Your task to perform on an android device: Open the calendar and show me this week's events? Image 0: 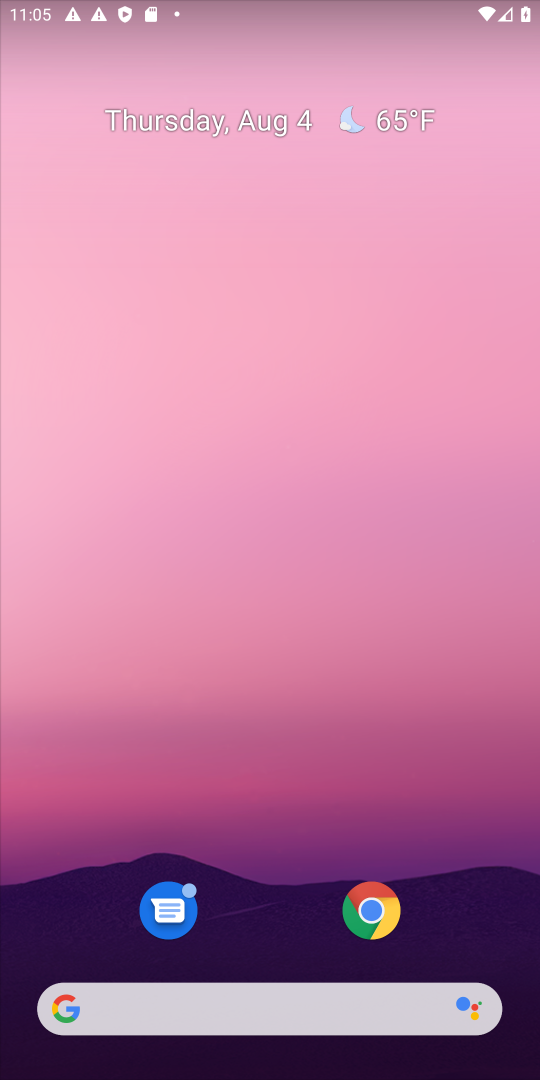
Step 0: drag from (289, 939) to (289, 208)
Your task to perform on an android device: Open the calendar and show me this week's events? Image 1: 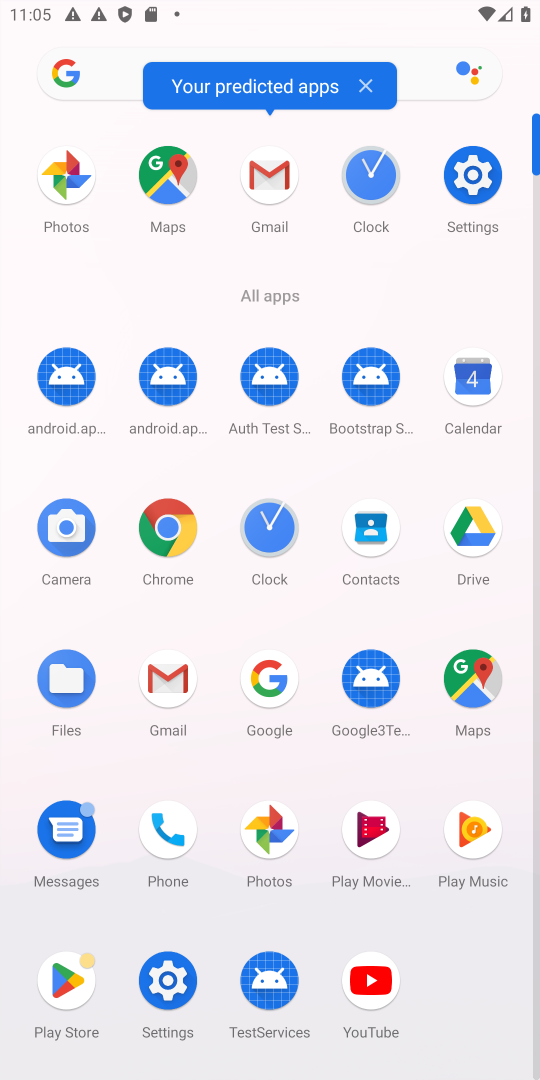
Step 1: click (467, 392)
Your task to perform on an android device: Open the calendar and show me this week's events? Image 2: 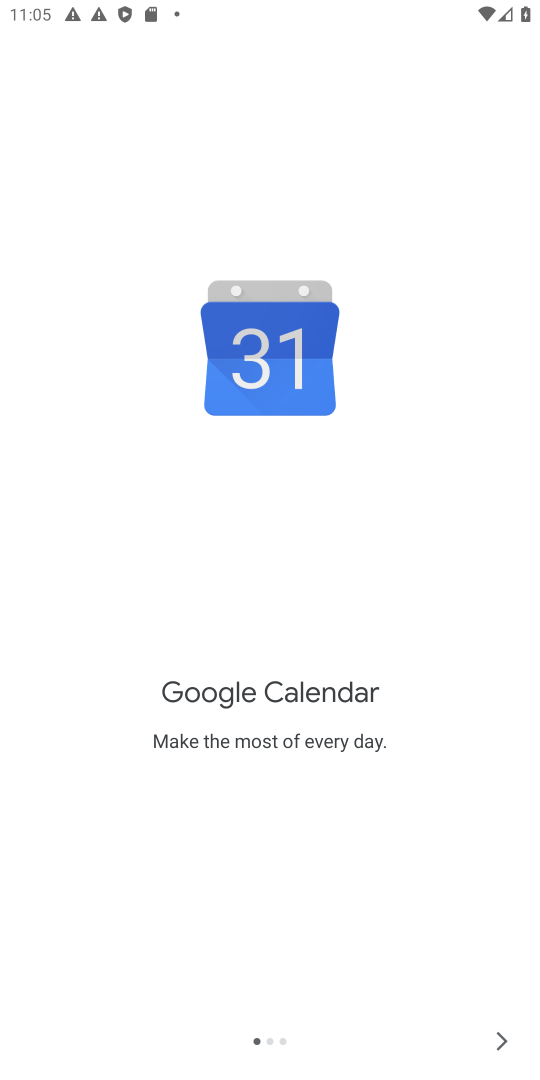
Step 2: click (510, 1051)
Your task to perform on an android device: Open the calendar and show me this week's events? Image 3: 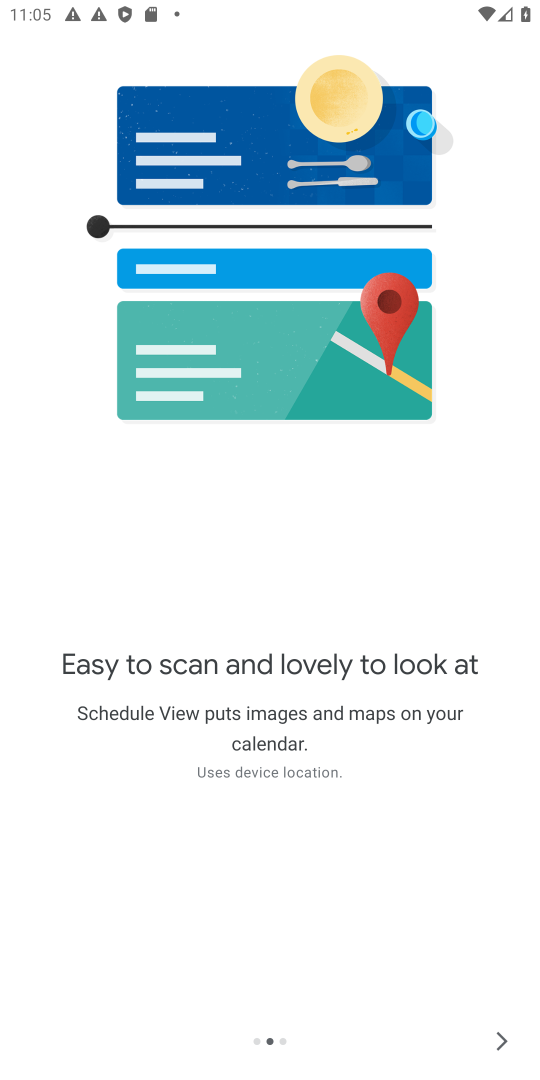
Step 3: click (500, 1047)
Your task to perform on an android device: Open the calendar and show me this week's events? Image 4: 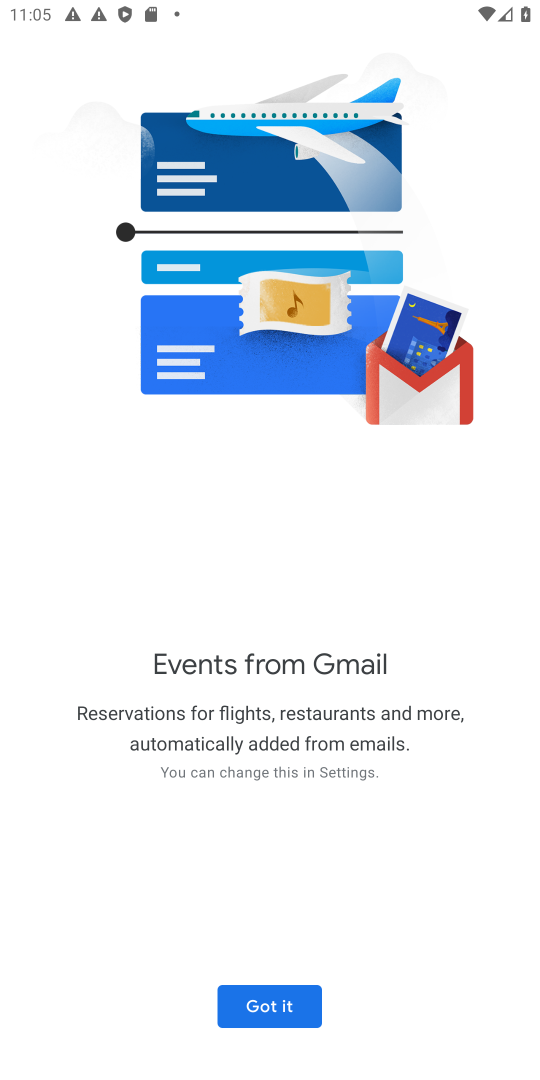
Step 4: click (240, 997)
Your task to perform on an android device: Open the calendar and show me this week's events? Image 5: 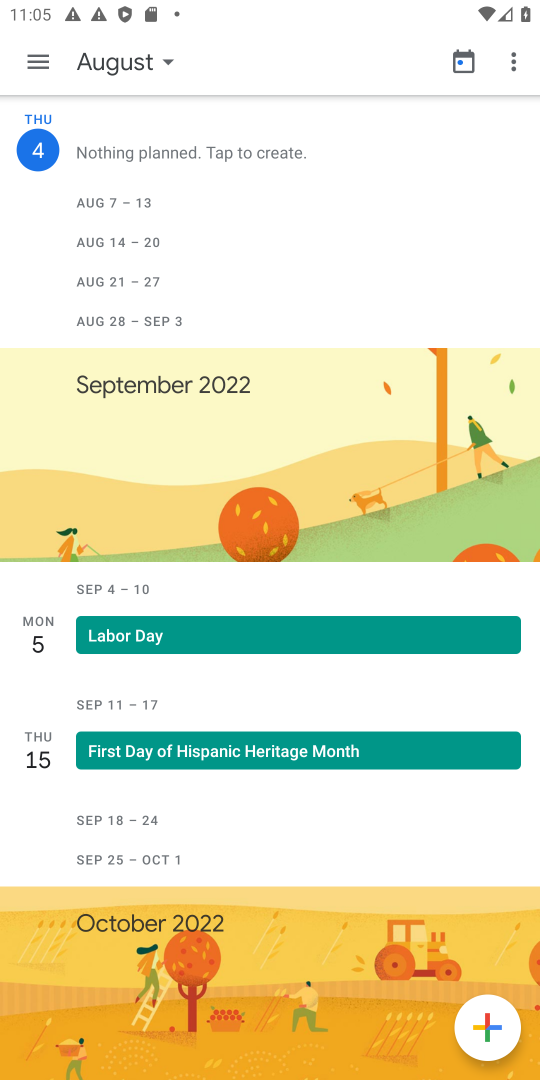
Step 5: task complete